Your task to perform on an android device: Open sound settings Image 0: 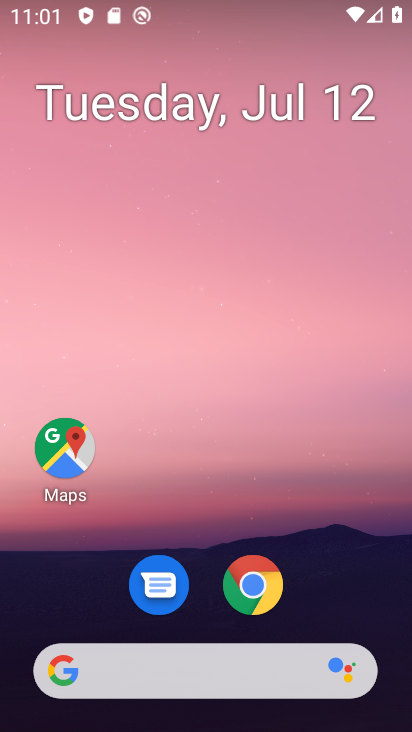
Step 0: drag from (223, 521) to (210, 14)
Your task to perform on an android device: Open sound settings Image 1: 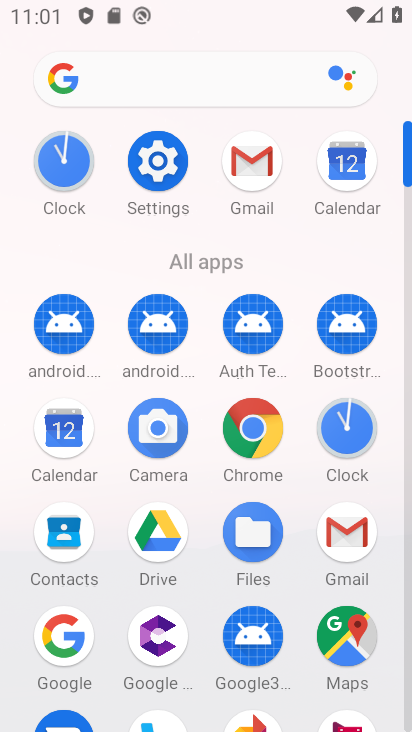
Step 1: click (162, 165)
Your task to perform on an android device: Open sound settings Image 2: 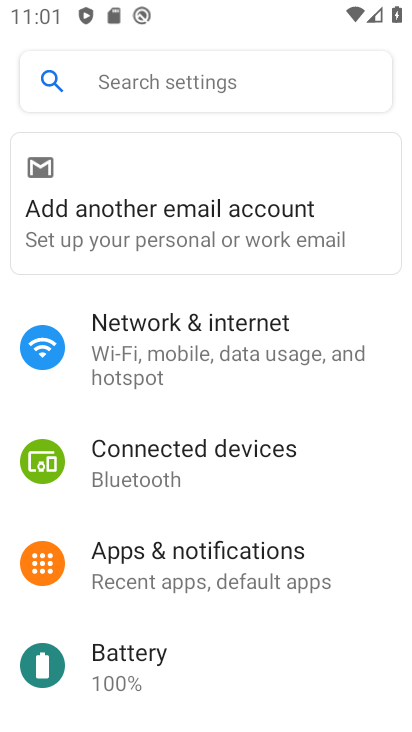
Step 2: drag from (218, 631) to (186, 224)
Your task to perform on an android device: Open sound settings Image 3: 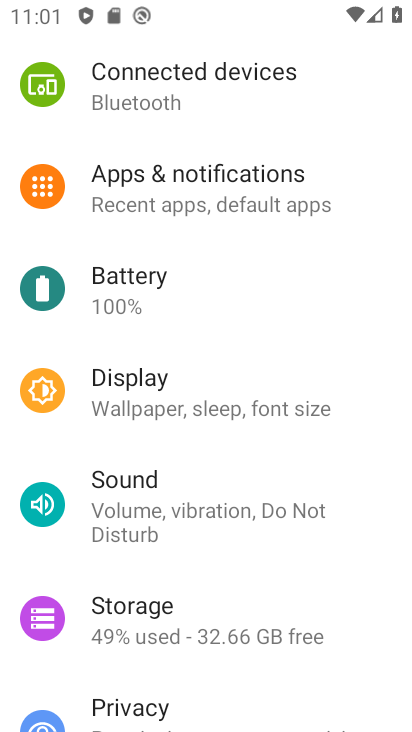
Step 3: click (179, 506)
Your task to perform on an android device: Open sound settings Image 4: 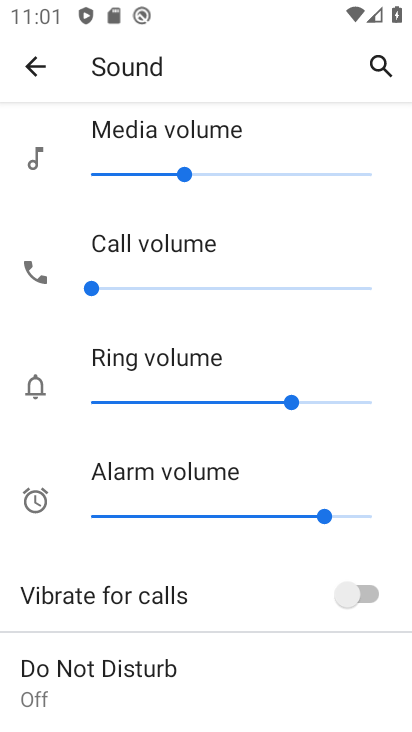
Step 4: task complete